Your task to perform on an android device: add a contact Image 0: 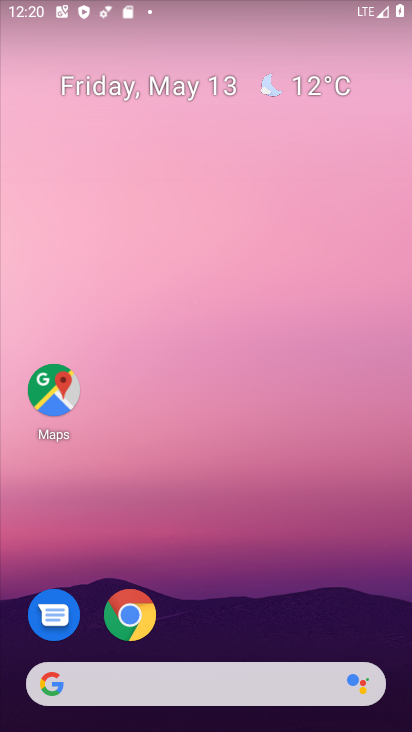
Step 0: drag from (219, 631) to (234, 245)
Your task to perform on an android device: add a contact Image 1: 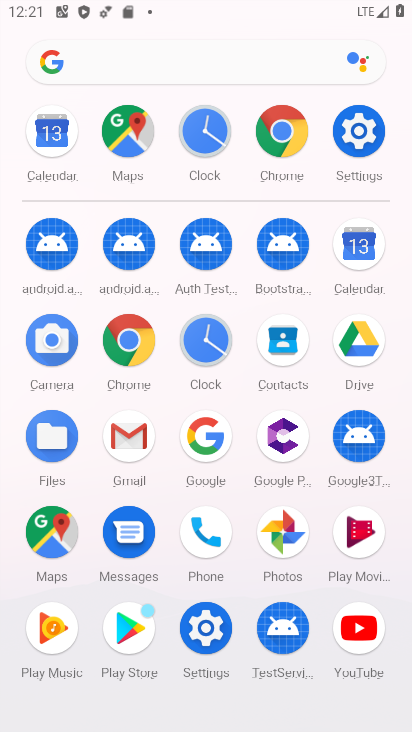
Step 1: drag from (217, 478) to (258, 270)
Your task to perform on an android device: add a contact Image 2: 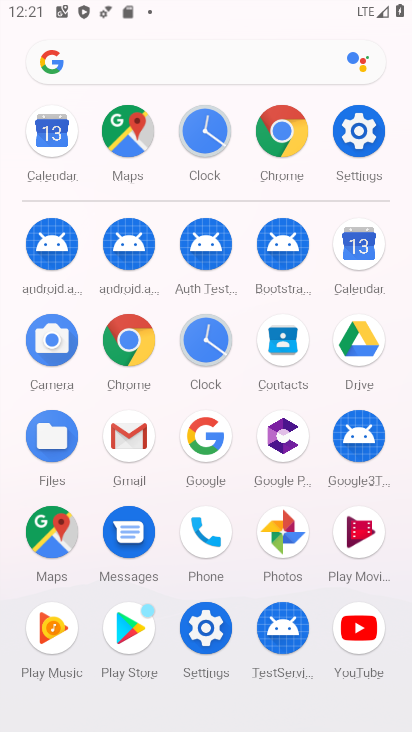
Step 2: click (276, 365)
Your task to perform on an android device: add a contact Image 3: 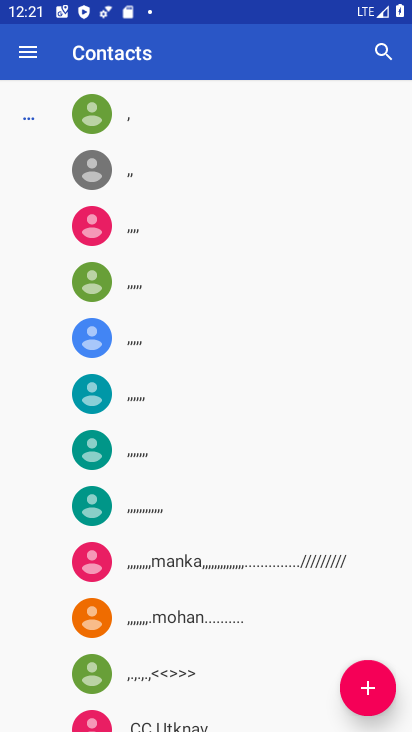
Step 3: click (374, 694)
Your task to perform on an android device: add a contact Image 4: 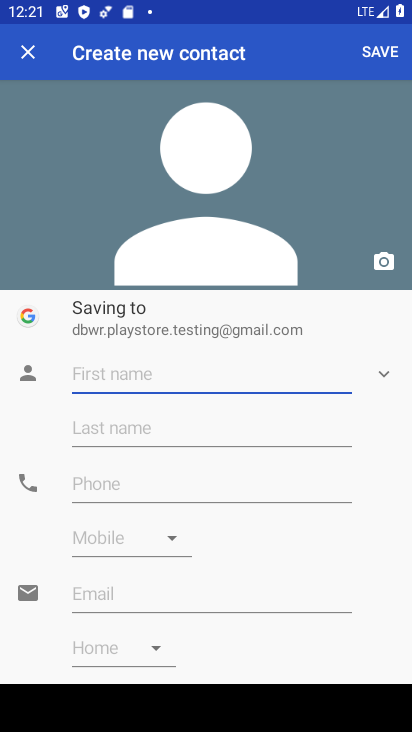
Step 4: type "hvjvjh"
Your task to perform on an android device: add a contact Image 5: 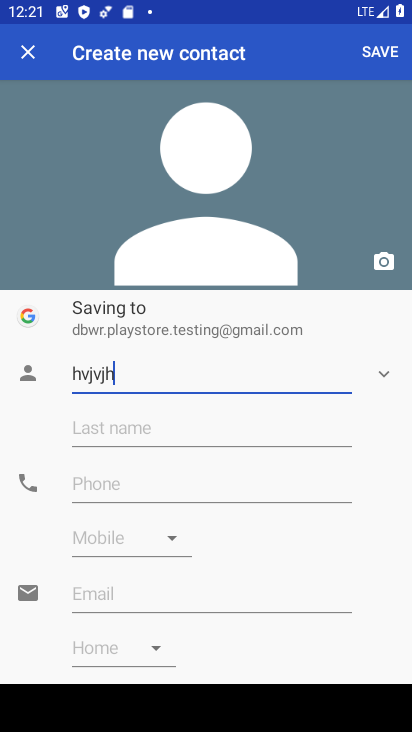
Step 5: click (191, 485)
Your task to perform on an android device: add a contact Image 6: 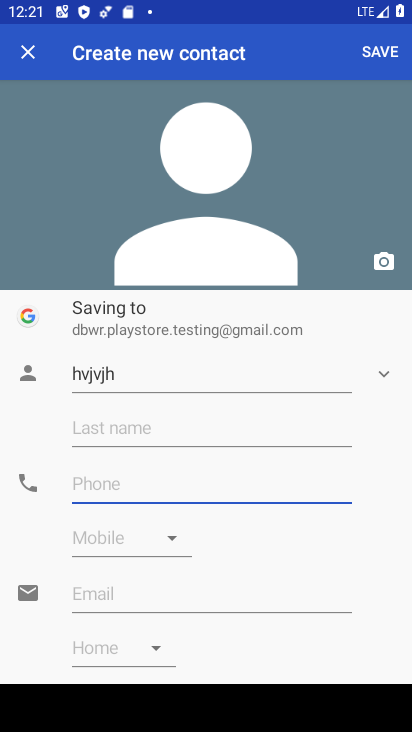
Step 6: type "986758567"
Your task to perform on an android device: add a contact Image 7: 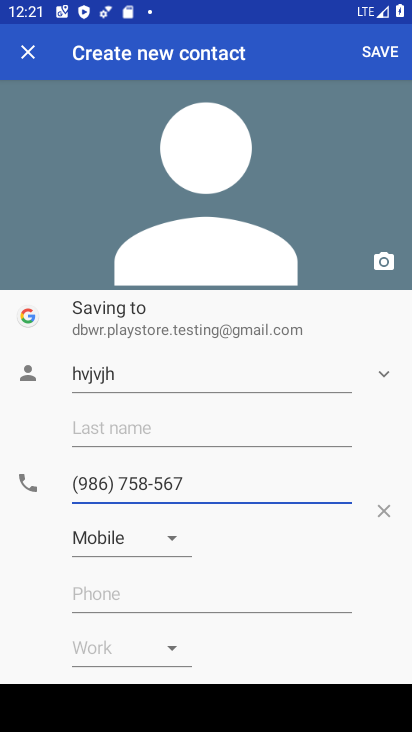
Step 7: click (381, 44)
Your task to perform on an android device: add a contact Image 8: 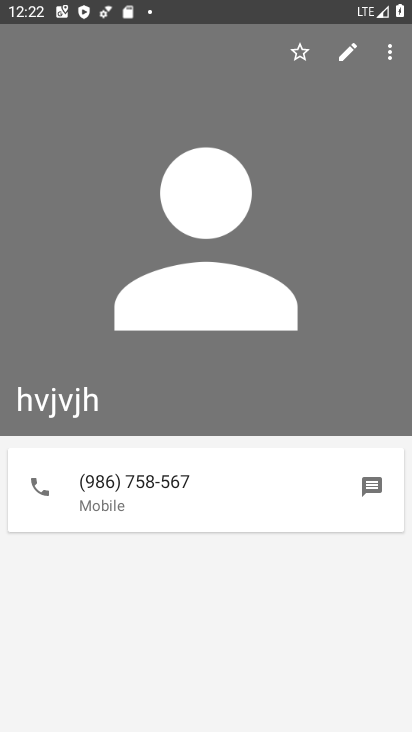
Step 8: task complete